Your task to perform on an android device: When is my next meeting? Image 0: 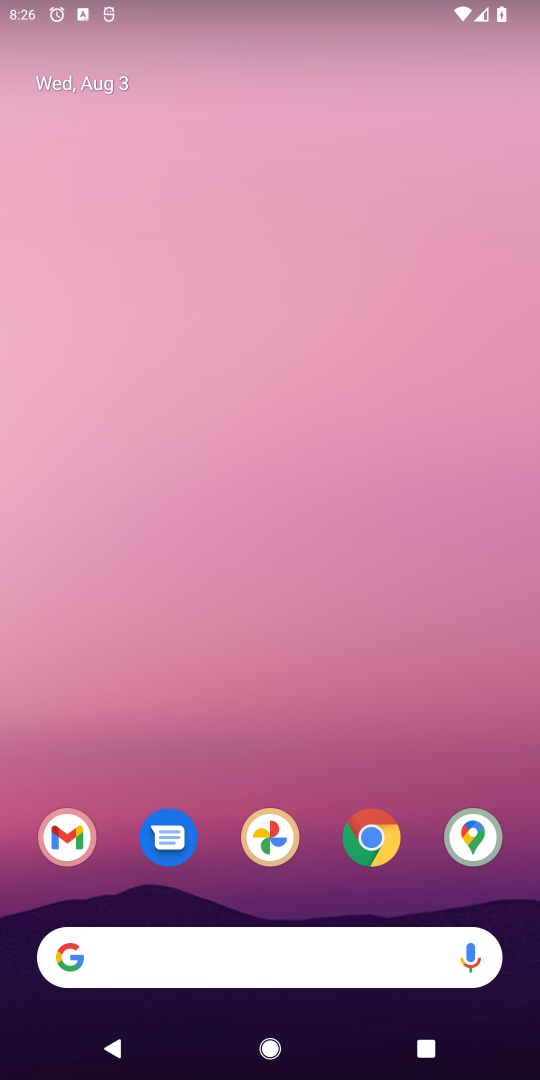
Step 0: drag from (310, 911) to (324, 146)
Your task to perform on an android device: When is my next meeting? Image 1: 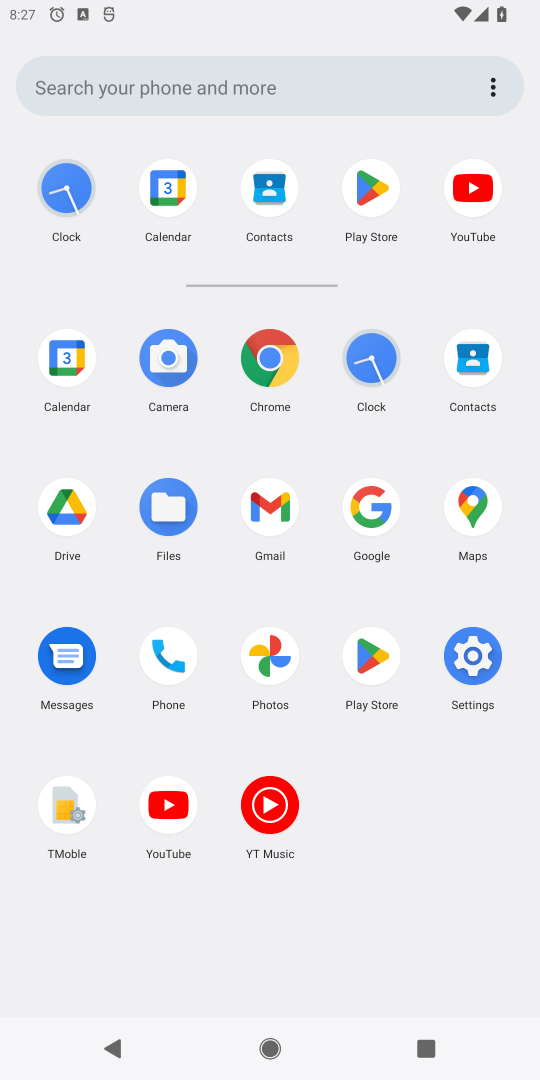
Step 1: click (175, 186)
Your task to perform on an android device: When is my next meeting? Image 2: 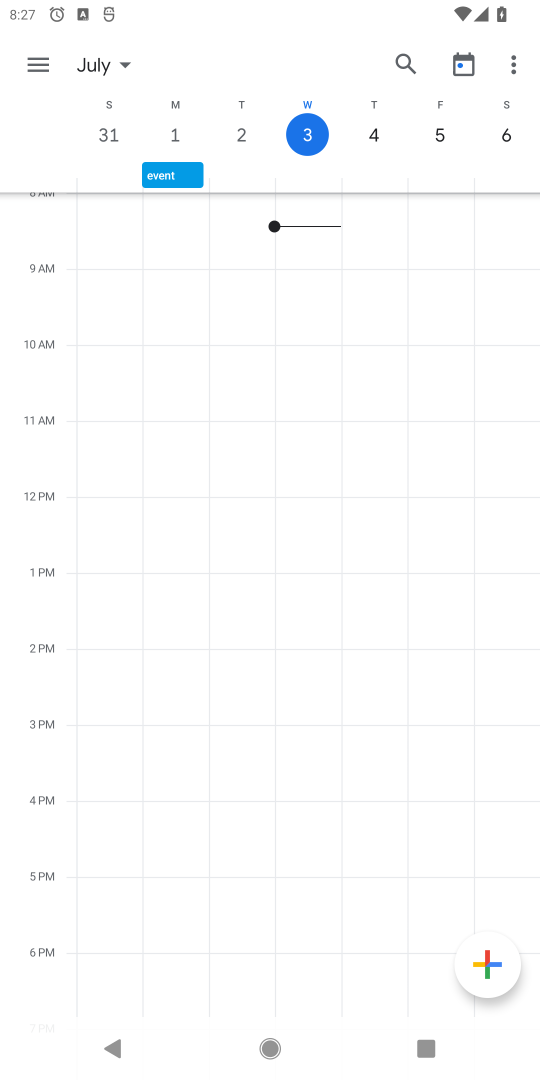
Step 2: click (45, 71)
Your task to perform on an android device: When is my next meeting? Image 3: 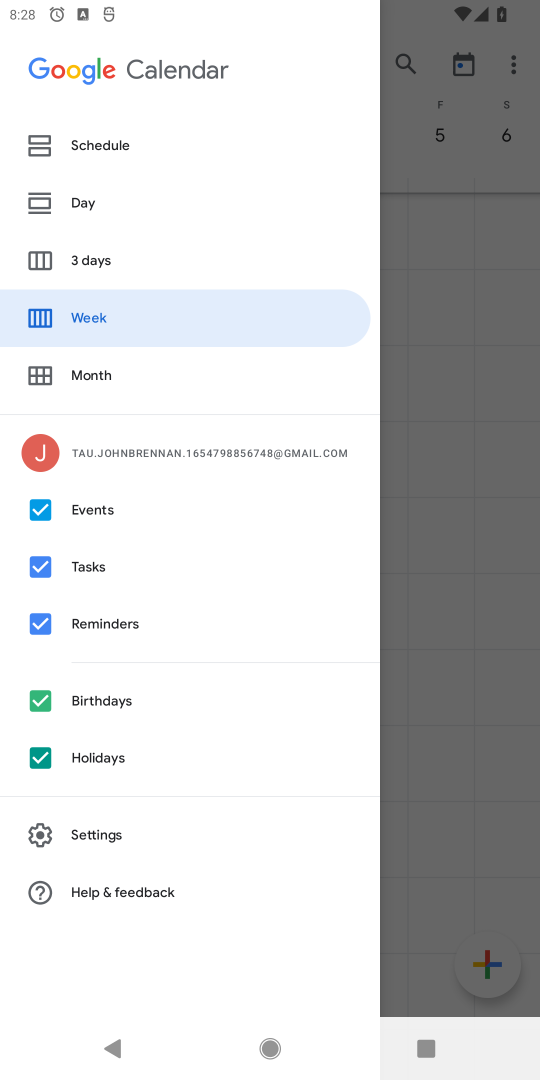
Step 3: click (82, 151)
Your task to perform on an android device: When is my next meeting? Image 4: 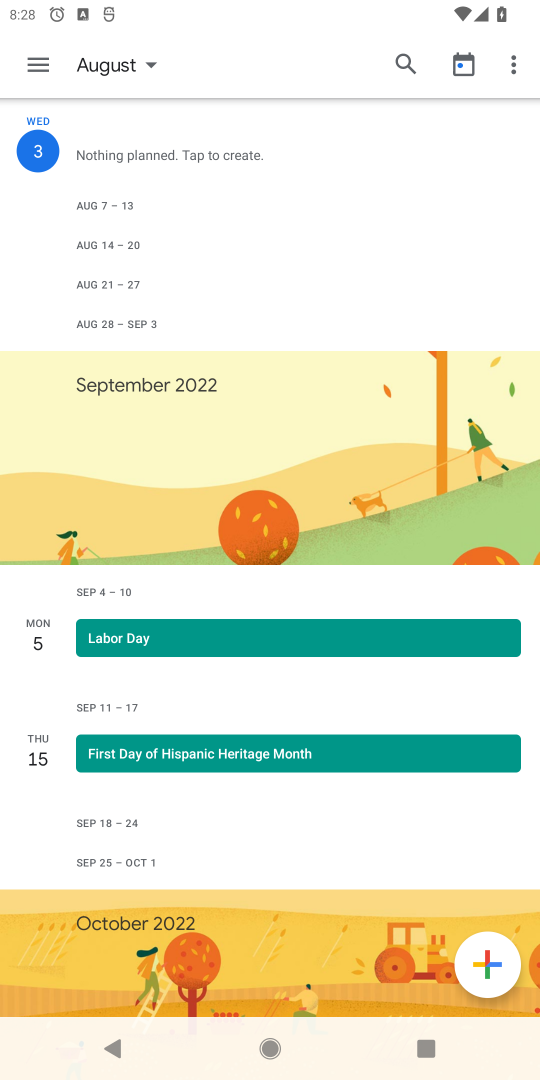
Step 4: task complete